Your task to perform on an android device: open app "Messages" (install if not already installed) Image 0: 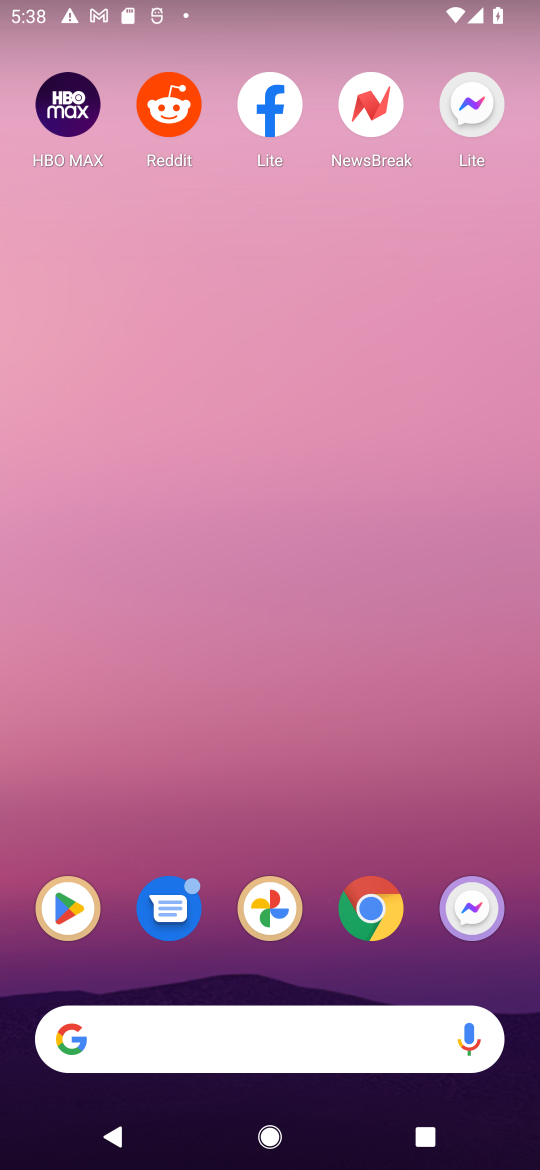
Step 0: click (68, 905)
Your task to perform on an android device: open app "Messages" (install if not already installed) Image 1: 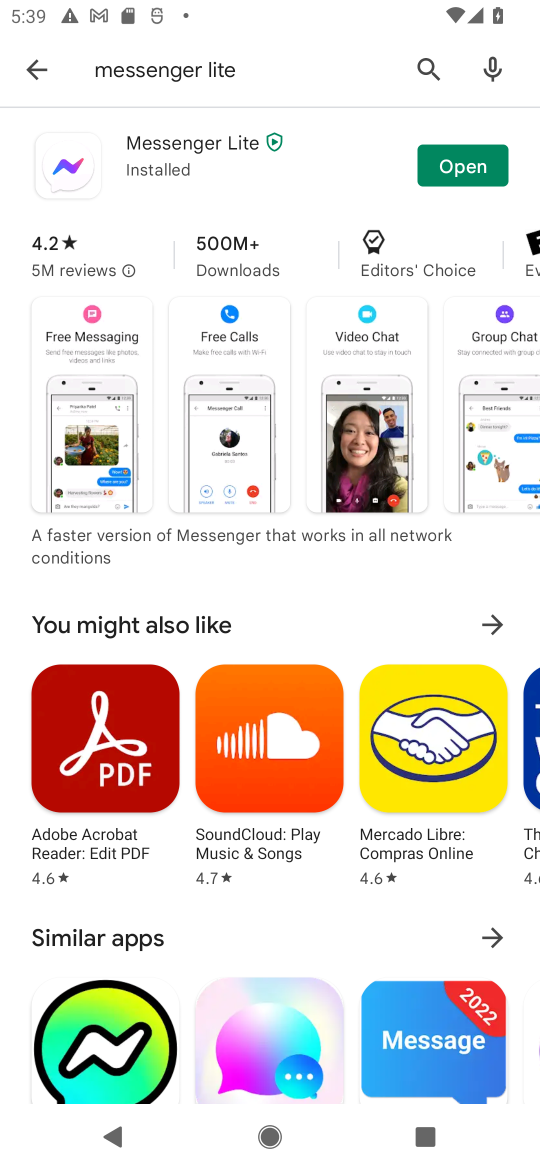
Step 1: click (420, 63)
Your task to perform on an android device: open app "Messages" (install if not already installed) Image 2: 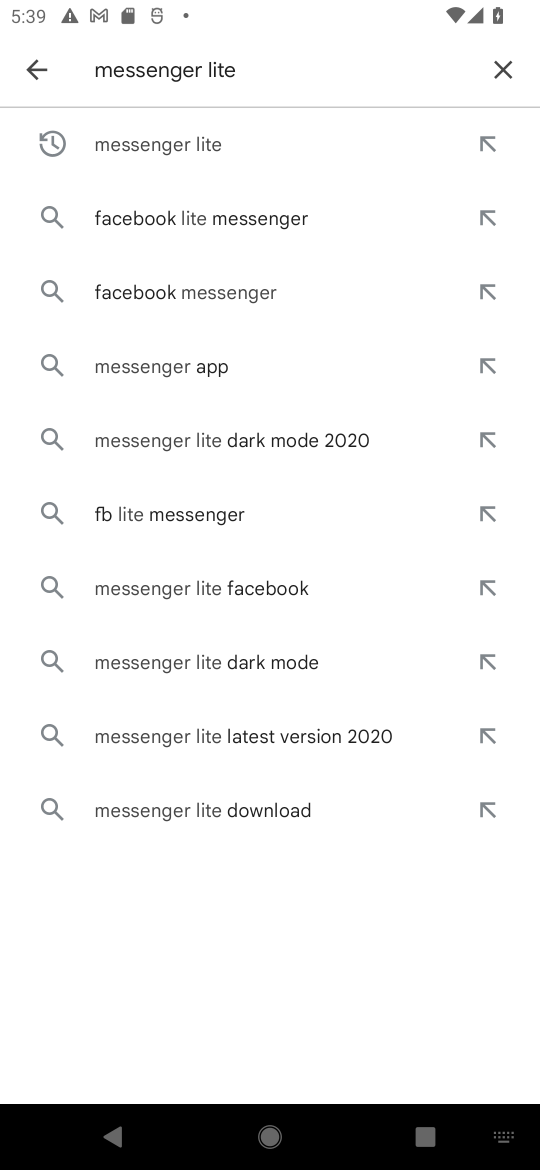
Step 2: click (499, 64)
Your task to perform on an android device: open app "Messages" (install if not already installed) Image 3: 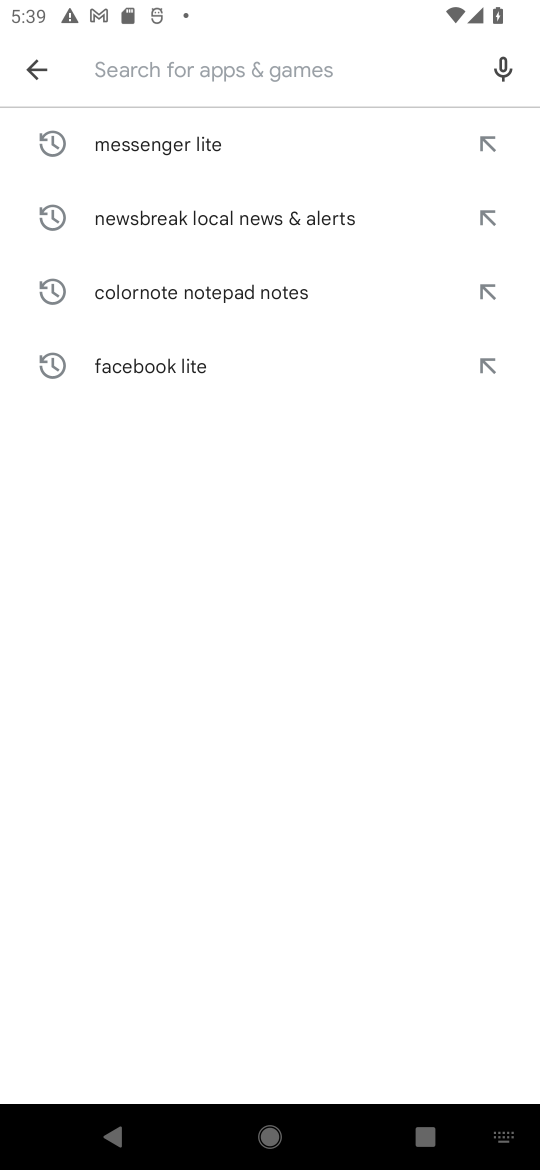
Step 3: type "Messages"
Your task to perform on an android device: open app "Messages" (install if not already installed) Image 4: 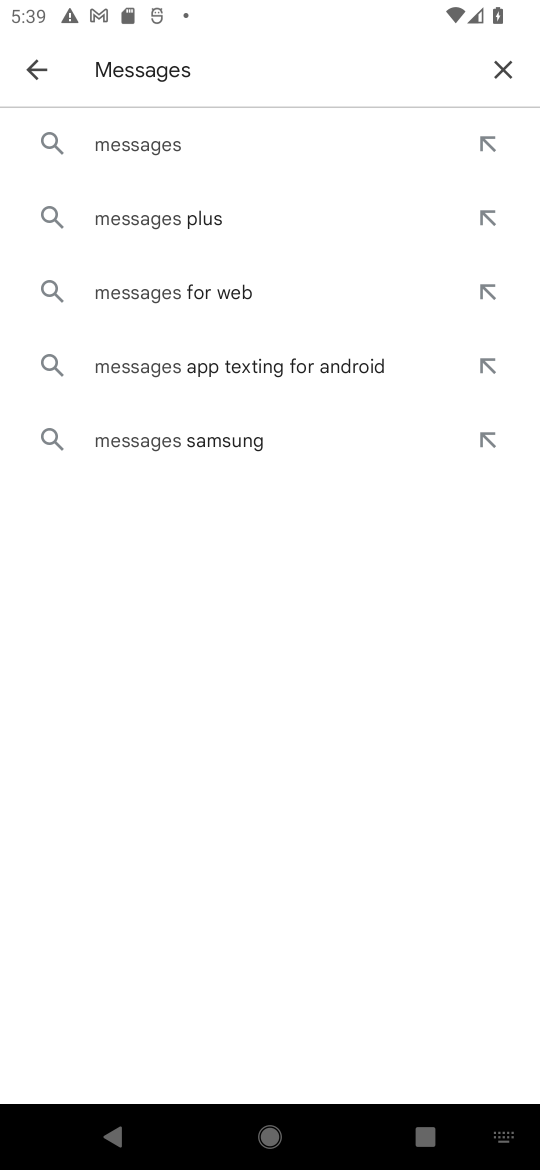
Step 4: click (187, 149)
Your task to perform on an android device: open app "Messages" (install if not already installed) Image 5: 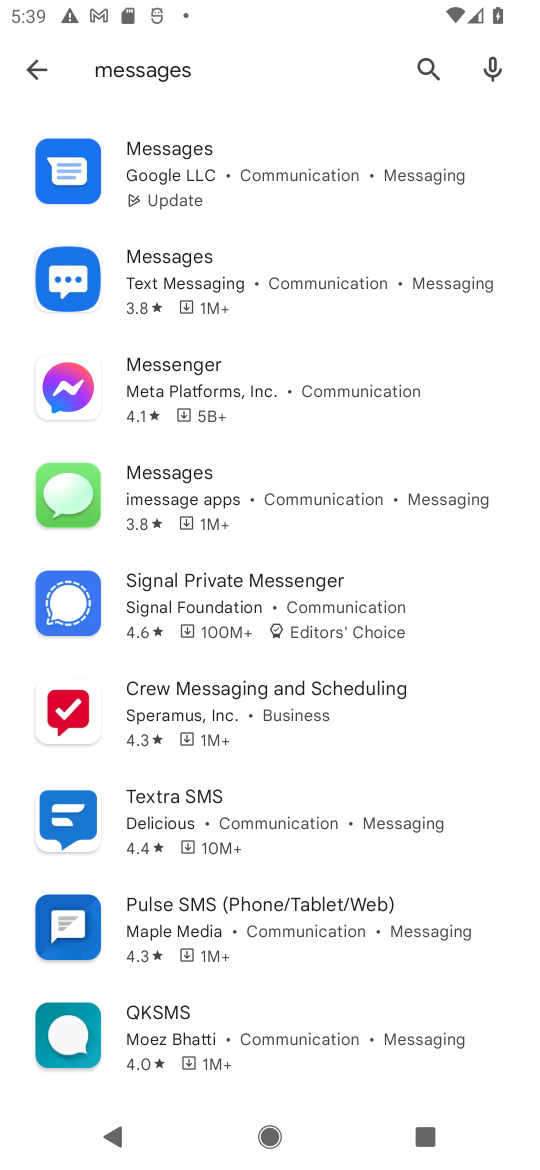
Step 5: click (236, 152)
Your task to perform on an android device: open app "Messages" (install if not already installed) Image 6: 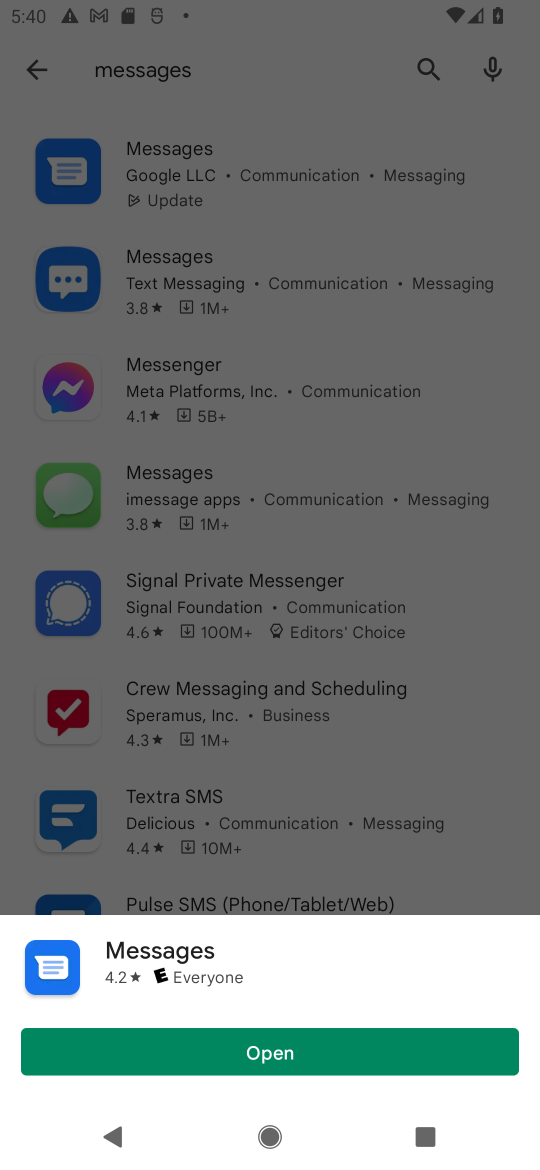
Step 6: click (315, 1052)
Your task to perform on an android device: open app "Messages" (install if not already installed) Image 7: 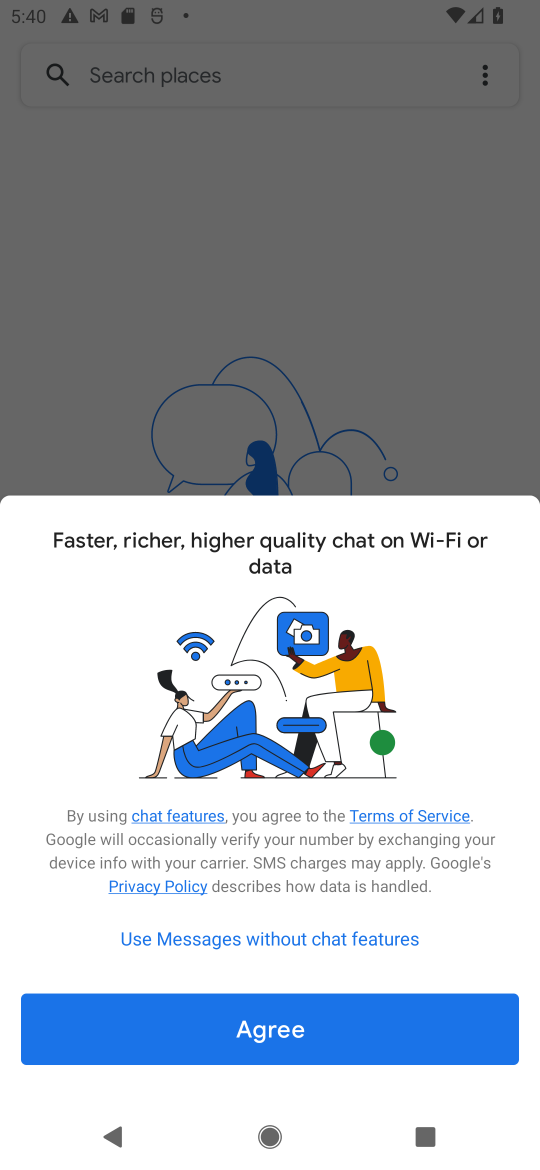
Step 7: task complete